Your task to perform on an android device: What is the recent news? Image 0: 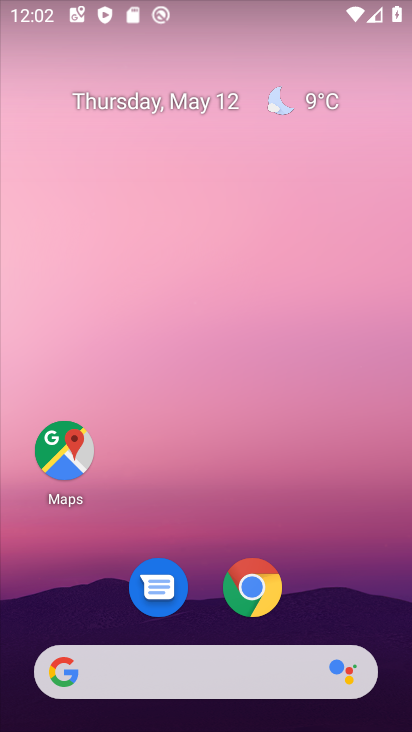
Step 0: drag from (322, 528) to (330, 227)
Your task to perform on an android device: What is the recent news? Image 1: 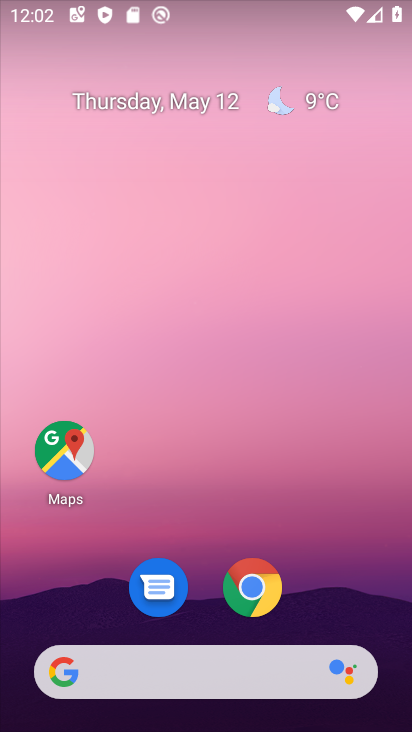
Step 1: drag from (341, 453) to (350, 216)
Your task to perform on an android device: What is the recent news? Image 2: 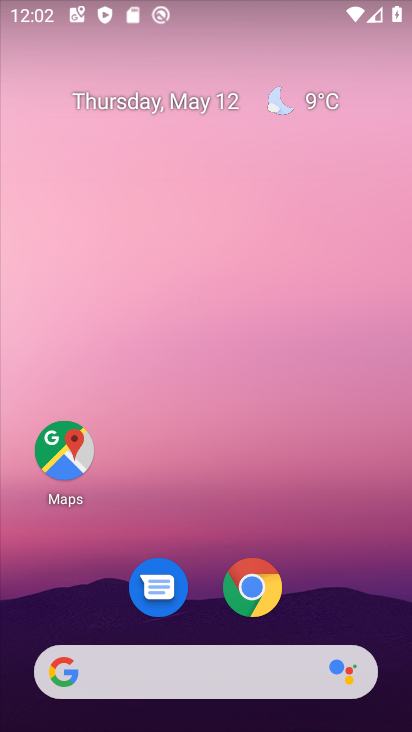
Step 2: drag from (352, 458) to (343, 141)
Your task to perform on an android device: What is the recent news? Image 3: 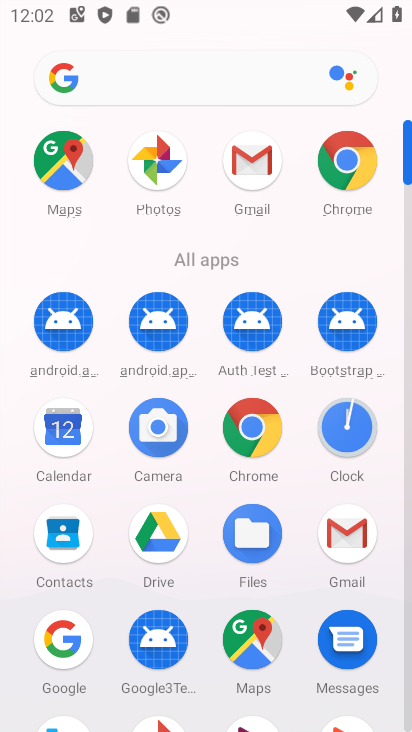
Step 3: click (337, 150)
Your task to perform on an android device: What is the recent news? Image 4: 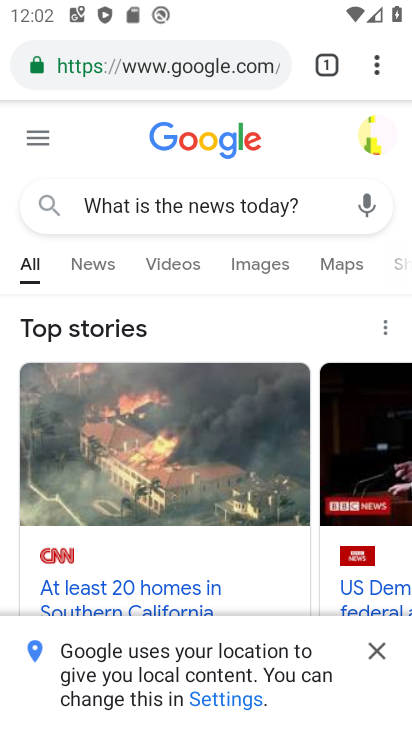
Step 4: click (356, 63)
Your task to perform on an android device: What is the recent news? Image 5: 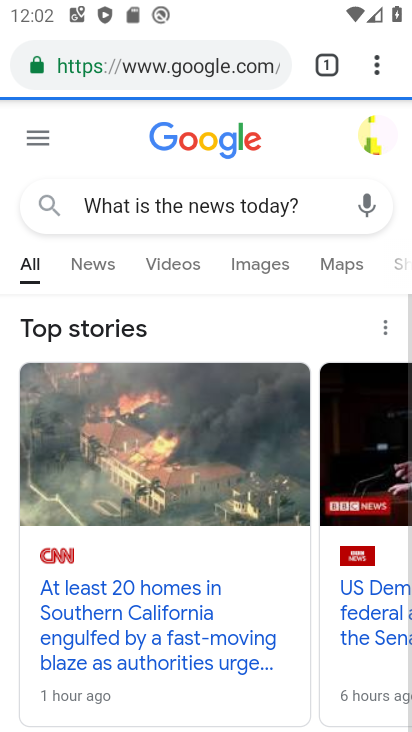
Step 5: click (354, 56)
Your task to perform on an android device: What is the recent news? Image 6: 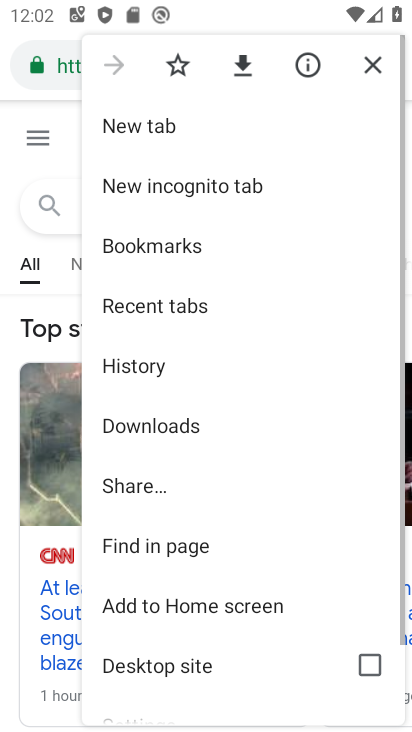
Step 6: click (151, 132)
Your task to perform on an android device: What is the recent news? Image 7: 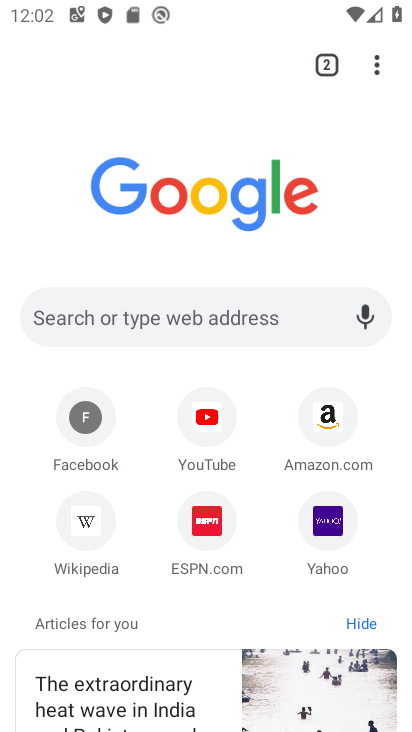
Step 7: click (222, 307)
Your task to perform on an android device: What is the recent news? Image 8: 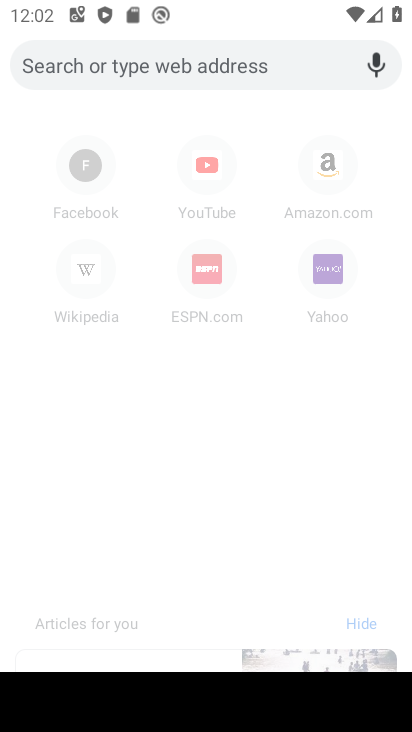
Step 8: type "What is the recent news?"
Your task to perform on an android device: What is the recent news? Image 9: 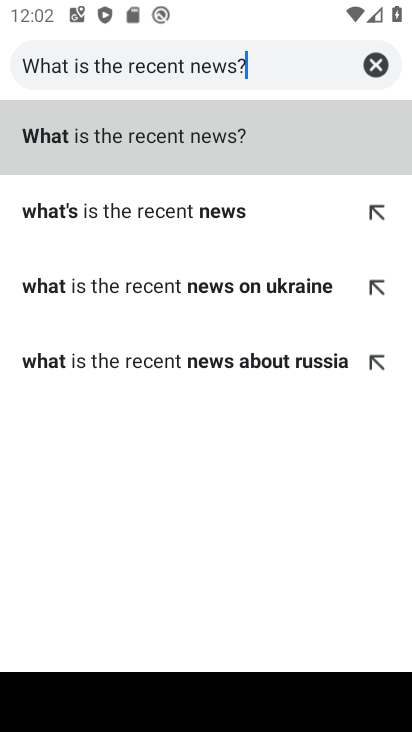
Step 9: click (250, 131)
Your task to perform on an android device: What is the recent news? Image 10: 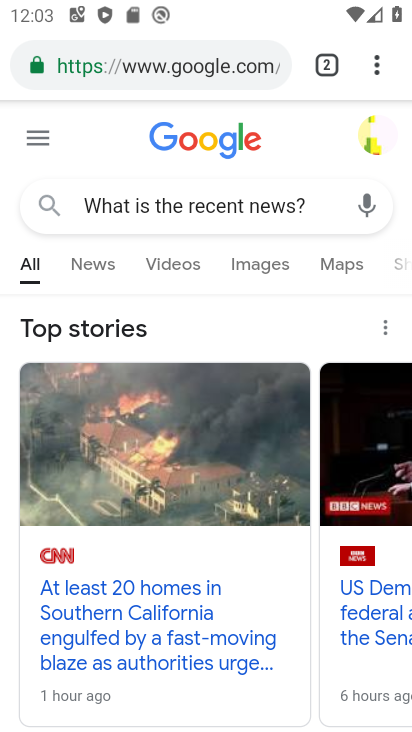
Step 10: task complete